Your task to perform on an android device: delete browsing data in the chrome app Image 0: 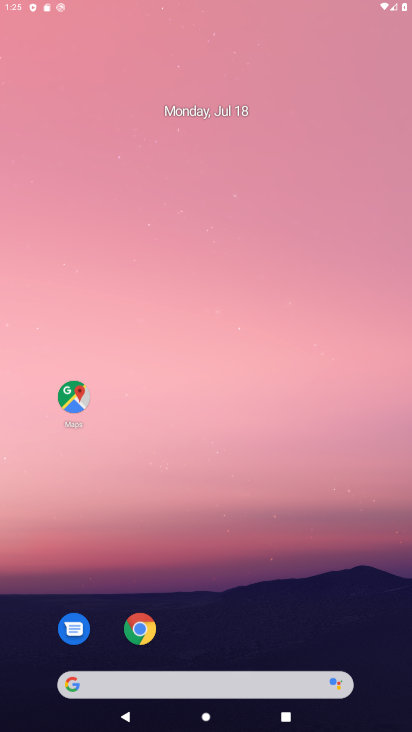
Step 0: press home button
Your task to perform on an android device: delete browsing data in the chrome app Image 1: 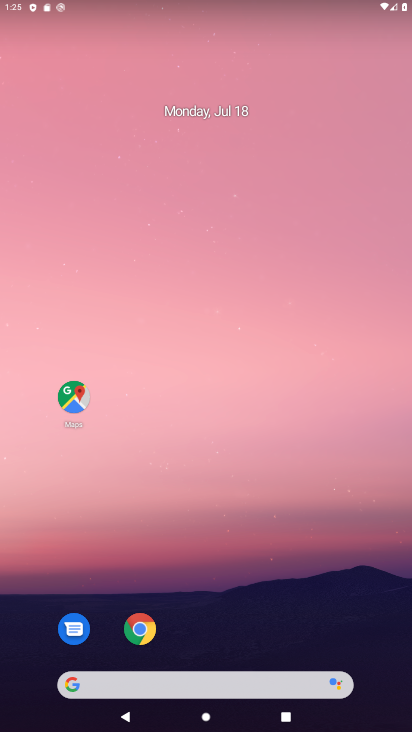
Step 1: click (138, 630)
Your task to perform on an android device: delete browsing data in the chrome app Image 2: 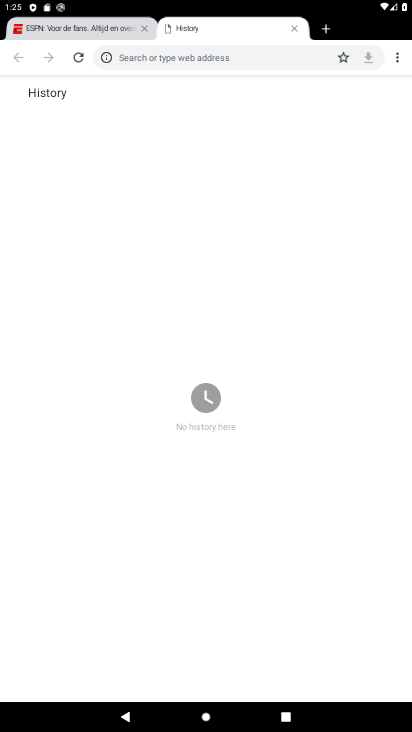
Step 2: click (399, 55)
Your task to perform on an android device: delete browsing data in the chrome app Image 3: 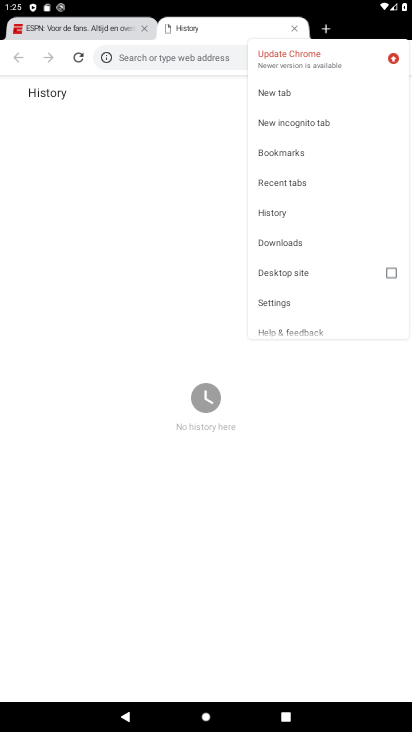
Step 3: click (287, 214)
Your task to perform on an android device: delete browsing data in the chrome app Image 4: 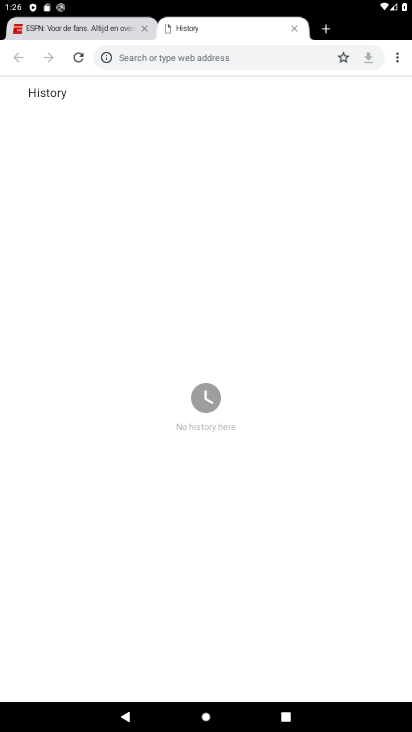
Step 4: task complete